Your task to perform on an android device: What's the weather today? Image 0: 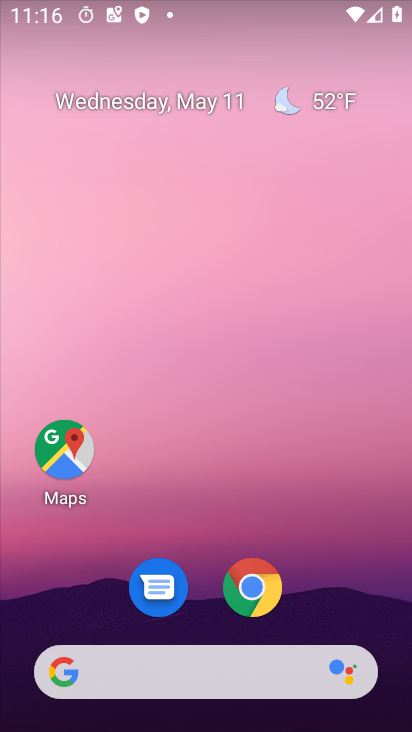
Step 0: drag from (254, 691) to (270, 220)
Your task to perform on an android device: What's the weather today? Image 1: 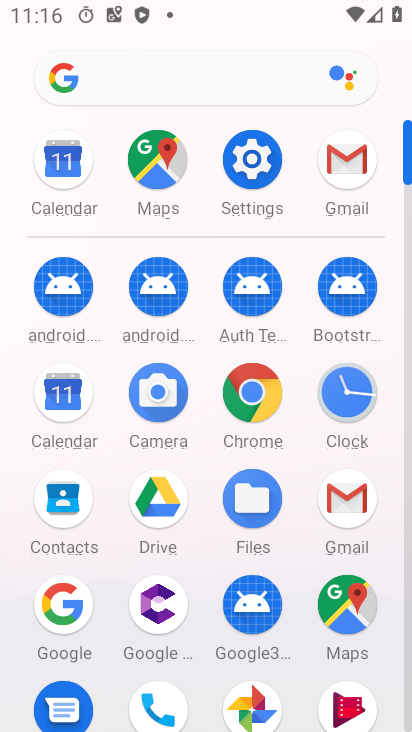
Step 1: click (241, 95)
Your task to perform on an android device: What's the weather today? Image 2: 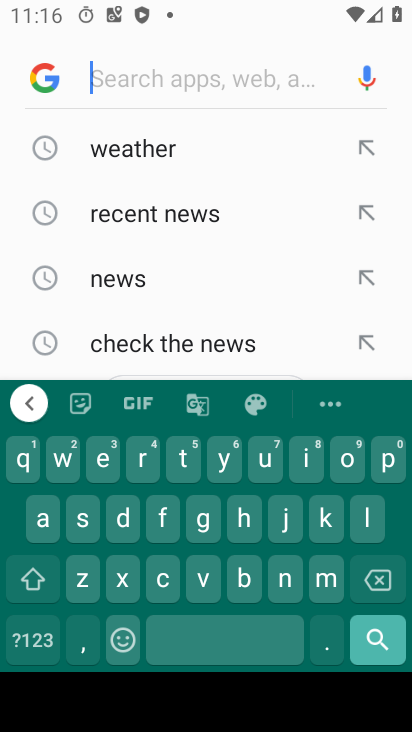
Step 2: click (170, 157)
Your task to perform on an android device: What's the weather today? Image 3: 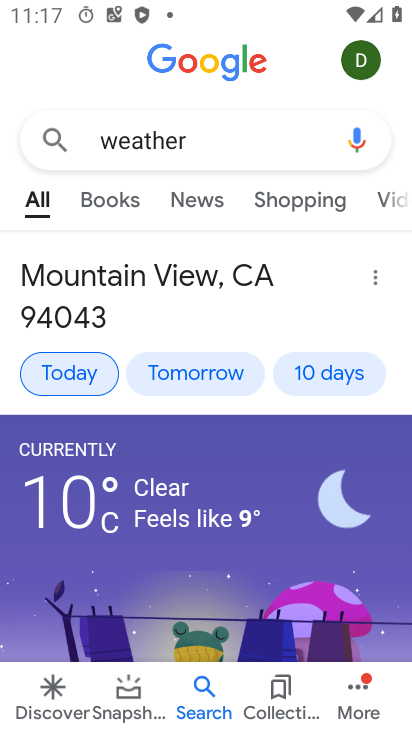
Step 3: click (86, 352)
Your task to perform on an android device: What's the weather today? Image 4: 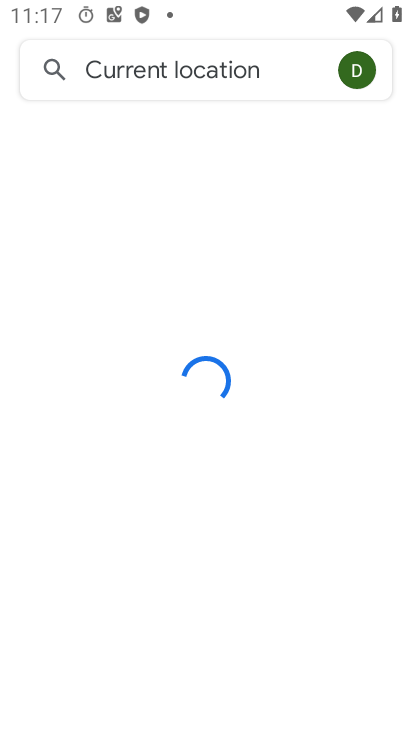
Step 4: task complete